Your task to perform on an android device: Open the phone app and click the voicemail tab. Image 0: 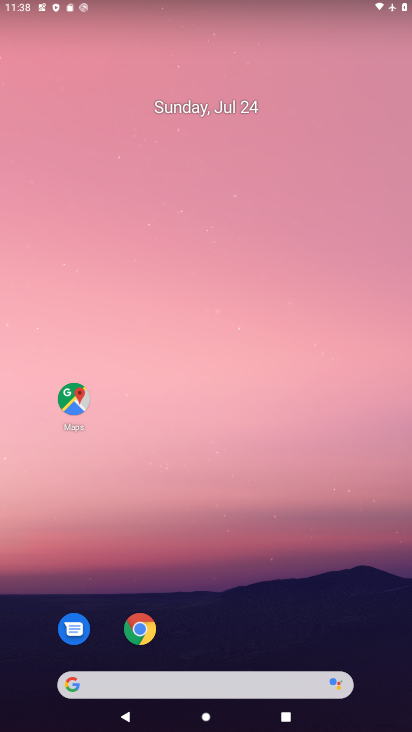
Step 0: drag from (226, 536) to (191, 128)
Your task to perform on an android device: Open the phone app and click the voicemail tab. Image 1: 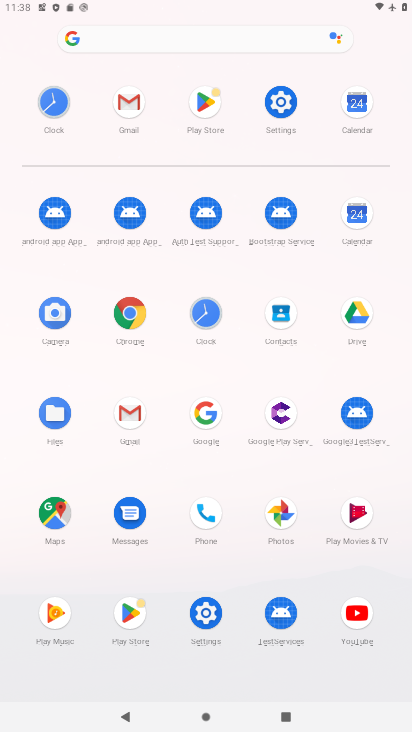
Step 1: click (181, 519)
Your task to perform on an android device: Open the phone app and click the voicemail tab. Image 2: 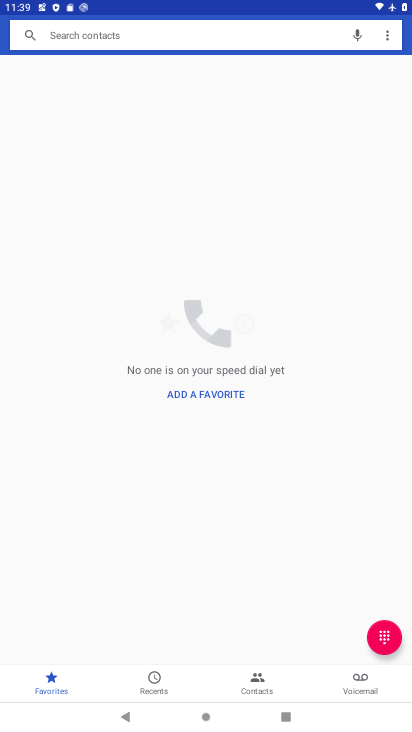
Step 2: click (367, 684)
Your task to perform on an android device: Open the phone app and click the voicemail tab. Image 3: 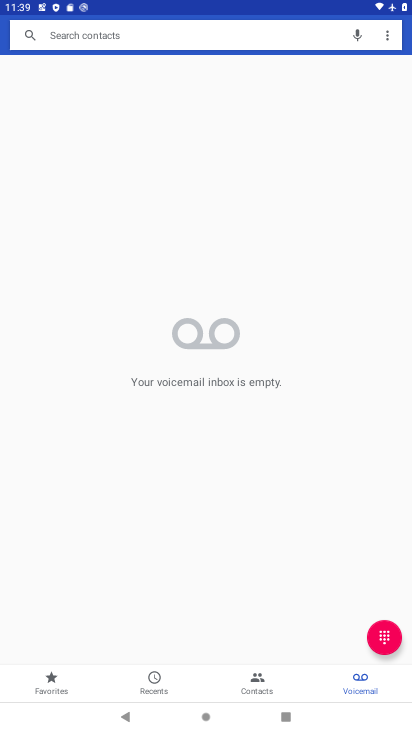
Step 3: task complete